Your task to perform on an android device: Do I have any events today? Image 0: 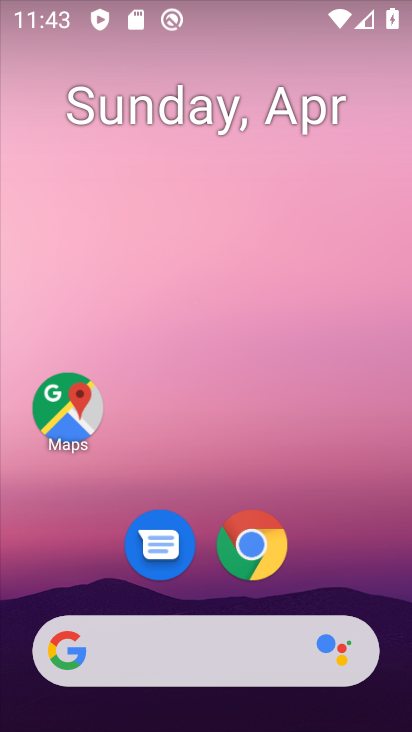
Step 0: click (206, 271)
Your task to perform on an android device: Do I have any events today? Image 1: 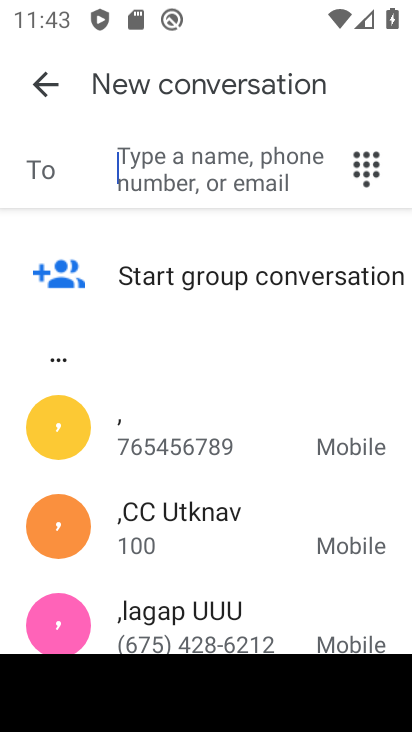
Step 1: press home button
Your task to perform on an android device: Do I have any events today? Image 2: 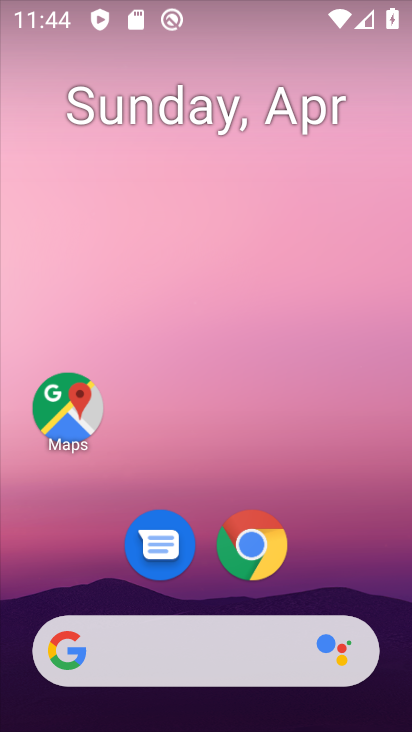
Step 2: drag from (213, 448) to (303, 1)
Your task to perform on an android device: Do I have any events today? Image 3: 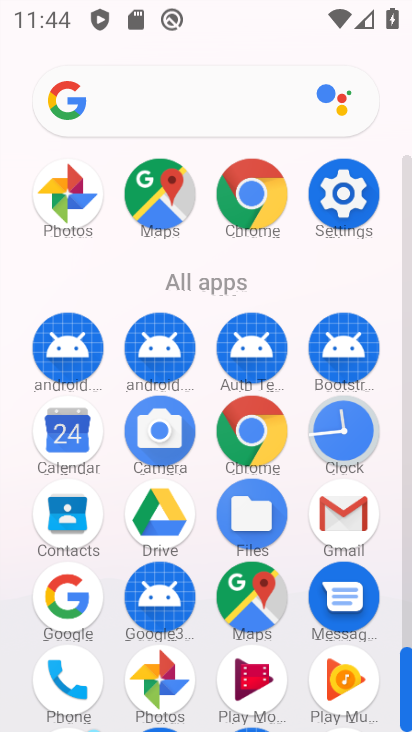
Step 3: click (78, 449)
Your task to perform on an android device: Do I have any events today? Image 4: 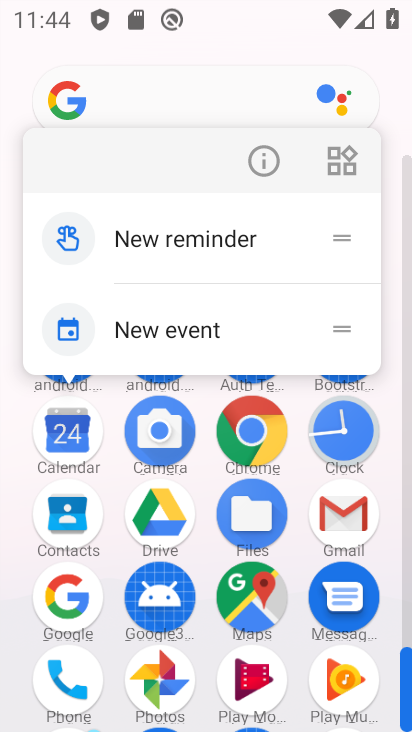
Step 4: click (69, 426)
Your task to perform on an android device: Do I have any events today? Image 5: 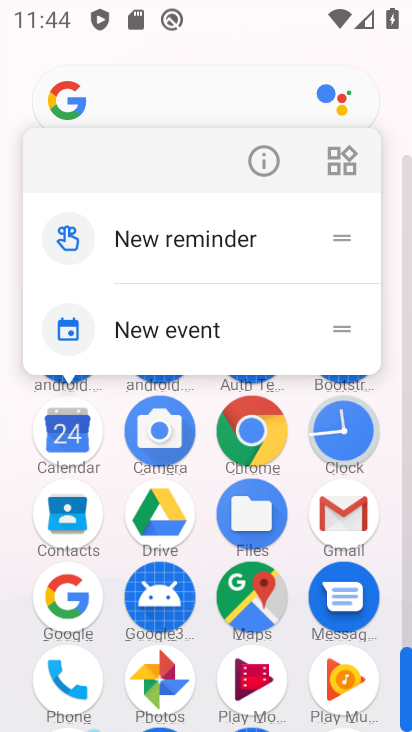
Step 5: click (64, 438)
Your task to perform on an android device: Do I have any events today? Image 6: 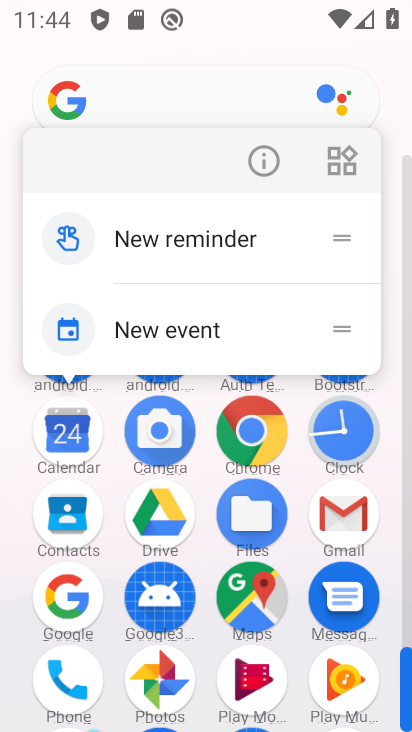
Step 6: click (72, 439)
Your task to perform on an android device: Do I have any events today? Image 7: 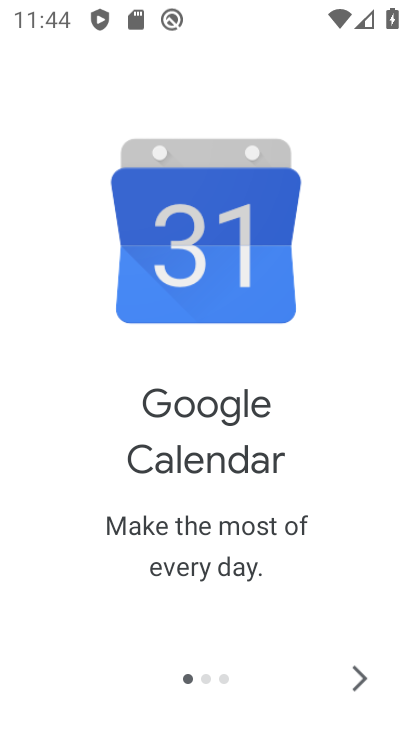
Step 7: click (341, 681)
Your task to perform on an android device: Do I have any events today? Image 8: 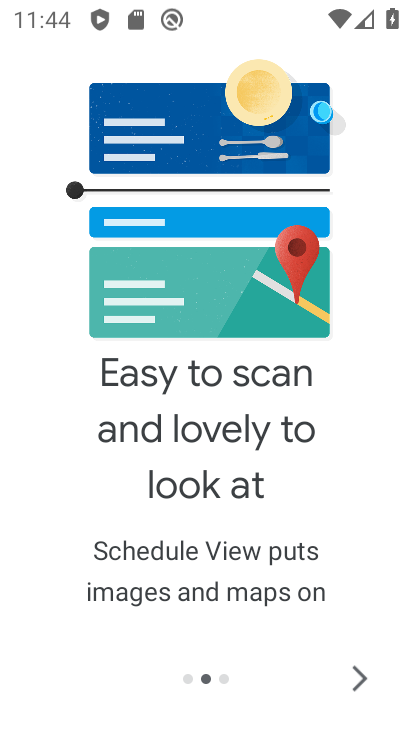
Step 8: click (366, 686)
Your task to perform on an android device: Do I have any events today? Image 9: 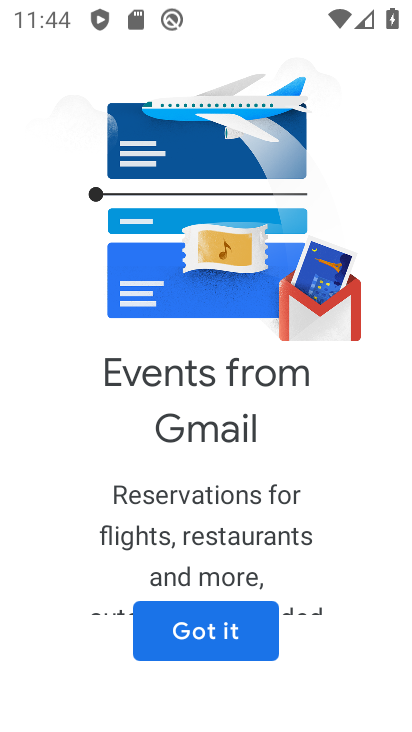
Step 9: click (223, 650)
Your task to perform on an android device: Do I have any events today? Image 10: 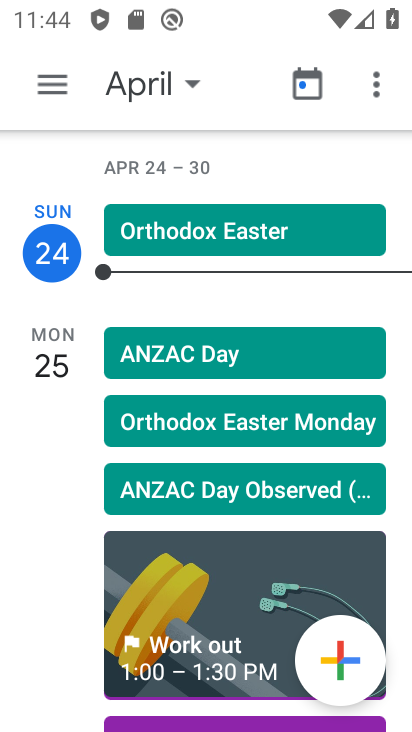
Step 10: task complete